Your task to perform on an android device: Go to display settings Image 0: 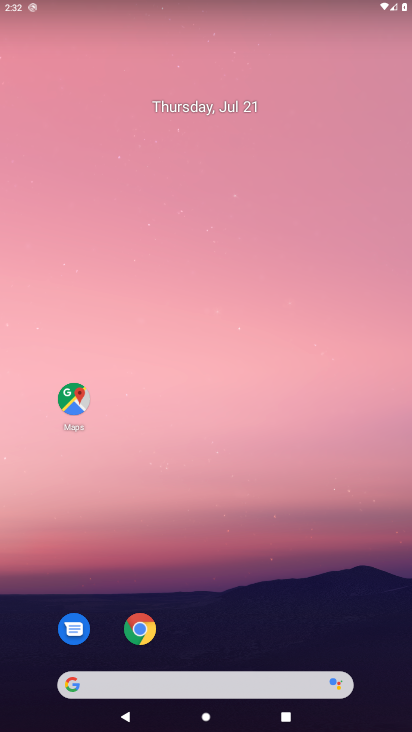
Step 0: drag from (27, 702) to (230, 241)
Your task to perform on an android device: Go to display settings Image 1: 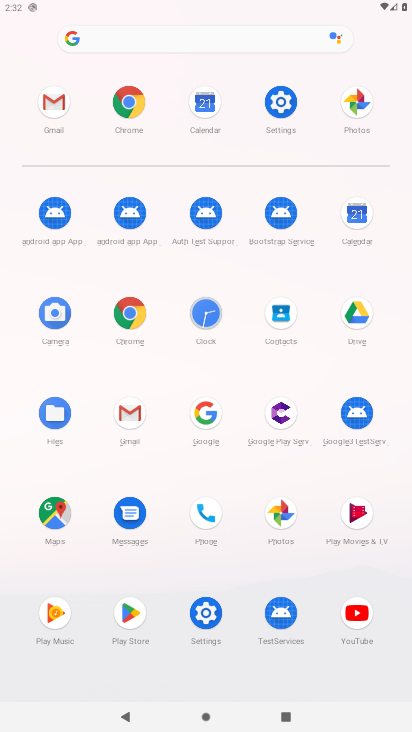
Step 1: click (220, 617)
Your task to perform on an android device: Go to display settings Image 2: 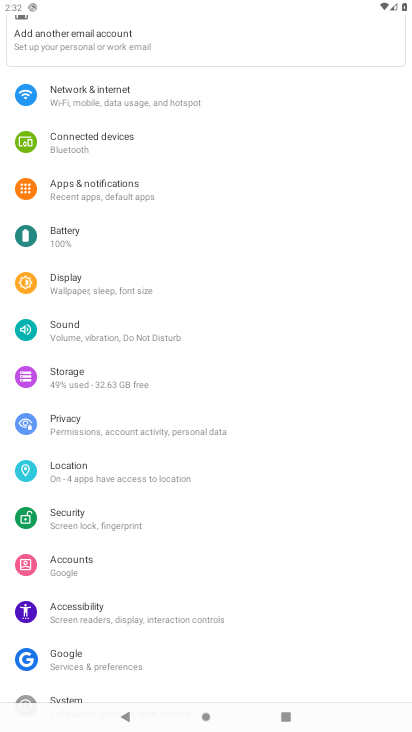
Step 2: click (95, 284)
Your task to perform on an android device: Go to display settings Image 3: 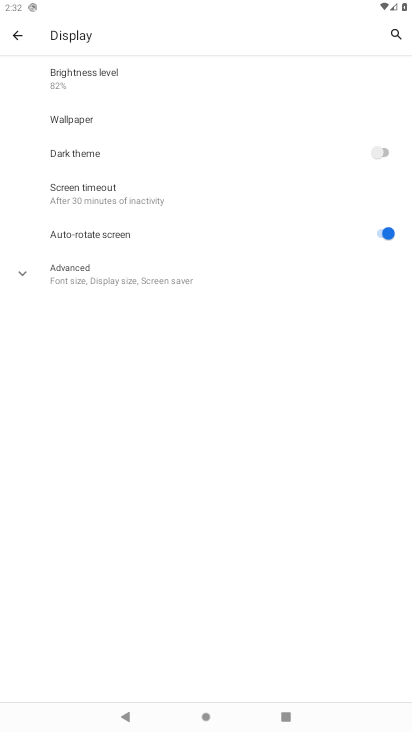
Step 3: task complete